Your task to perform on an android device: Open Wikipedia Image 0: 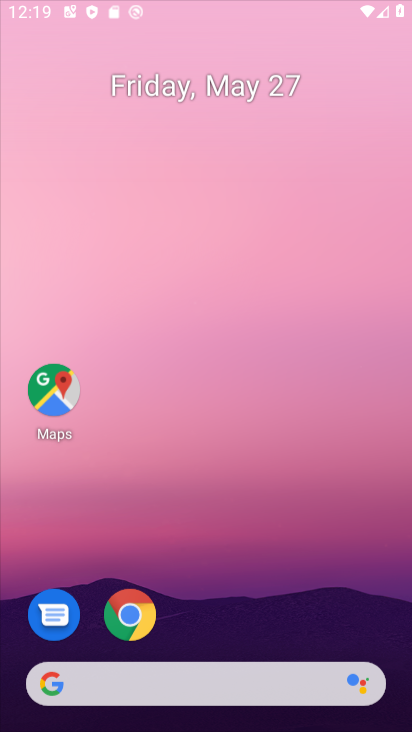
Step 0: drag from (243, 566) to (367, 54)
Your task to perform on an android device: Open Wikipedia Image 1: 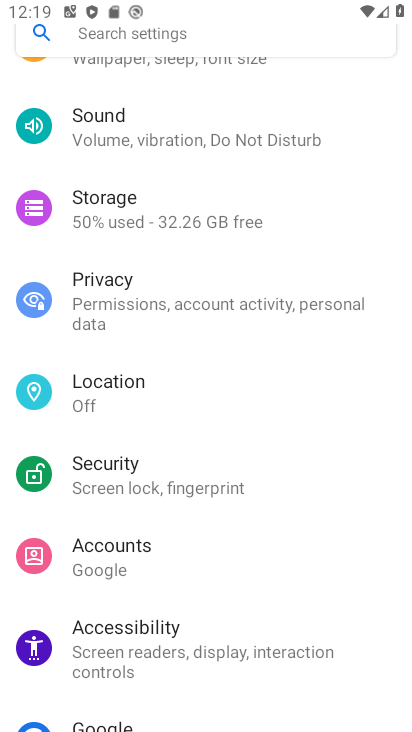
Step 1: press home button
Your task to perform on an android device: Open Wikipedia Image 2: 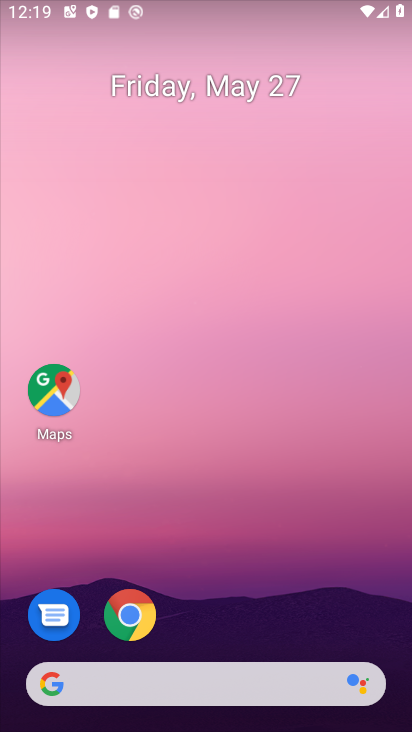
Step 2: drag from (190, 643) to (312, 33)
Your task to perform on an android device: Open Wikipedia Image 3: 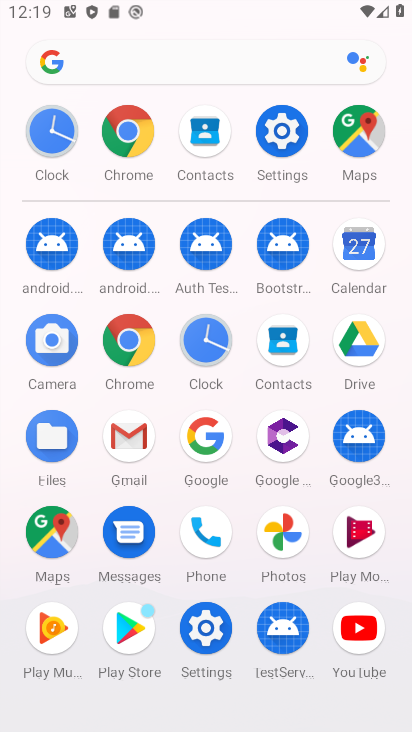
Step 3: click (139, 345)
Your task to perform on an android device: Open Wikipedia Image 4: 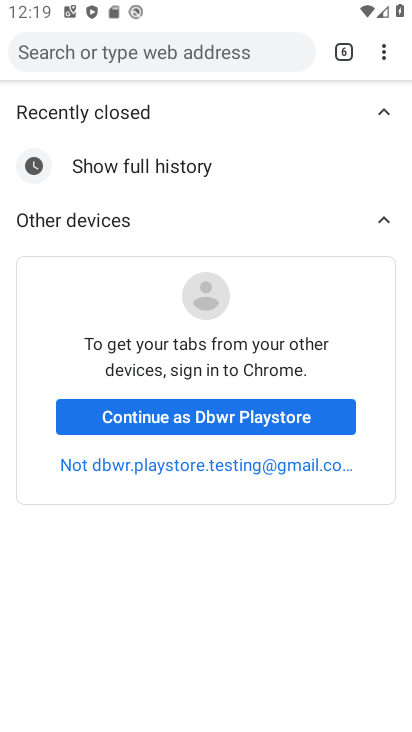
Step 4: drag from (380, 57) to (242, 87)
Your task to perform on an android device: Open Wikipedia Image 5: 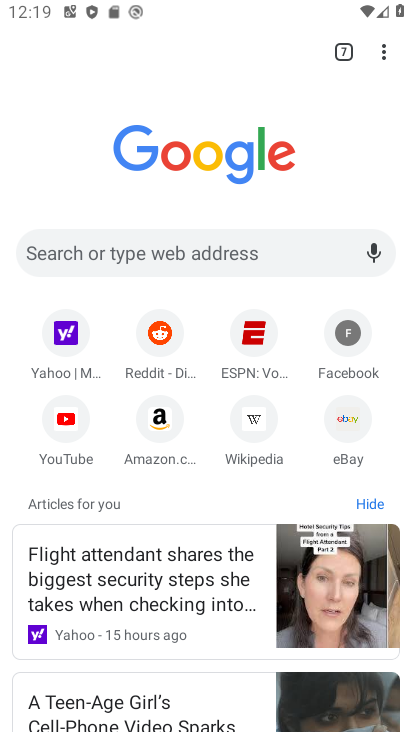
Step 5: click (267, 418)
Your task to perform on an android device: Open Wikipedia Image 6: 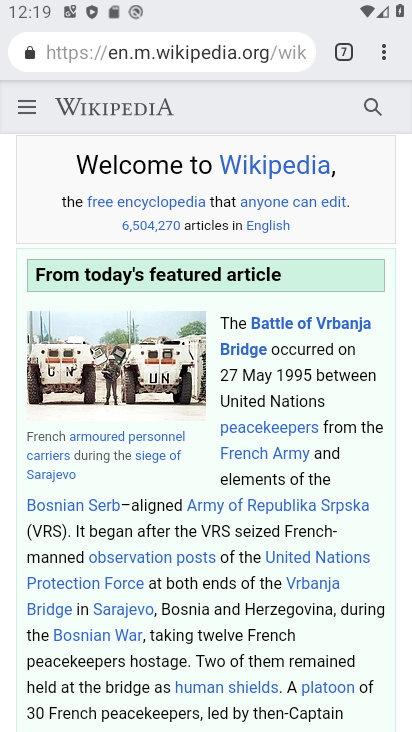
Step 6: task complete